Your task to perform on an android device: Do I have any events this weekend? Image 0: 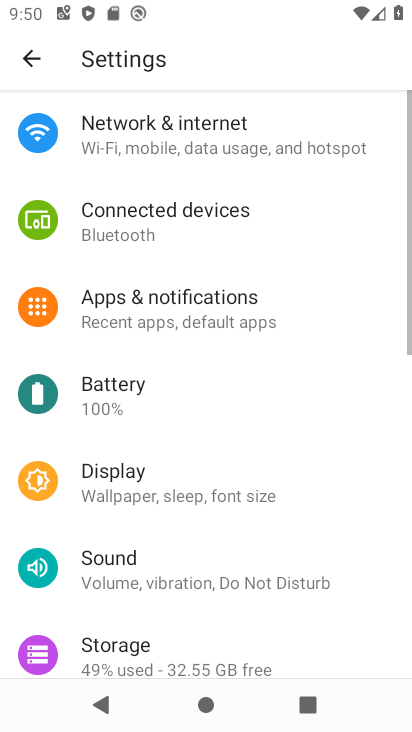
Step 0: click (214, 319)
Your task to perform on an android device: Do I have any events this weekend? Image 1: 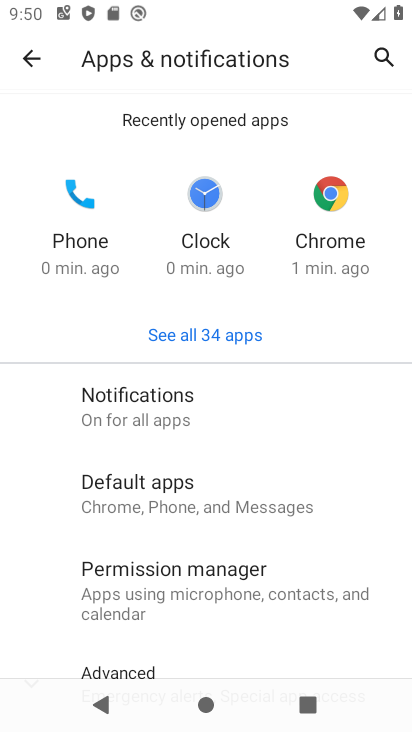
Step 1: press home button
Your task to perform on an android device: Do I have any events this weekend? Image 2: 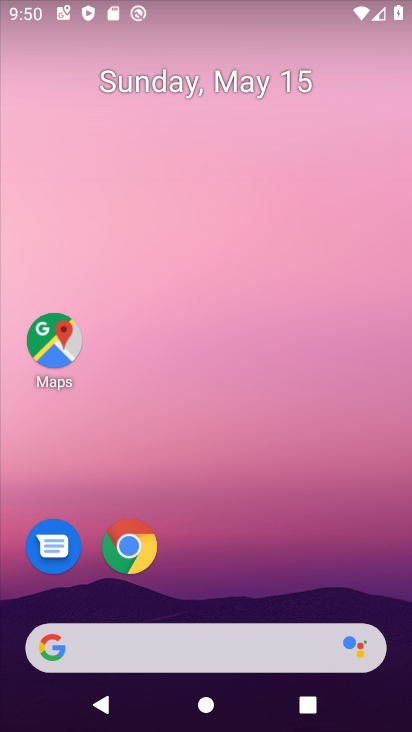
Step 2: drag from (268, 569) to (308, 26)
Your task to perform on an android device: Do I have any events this weekend? Image 3: 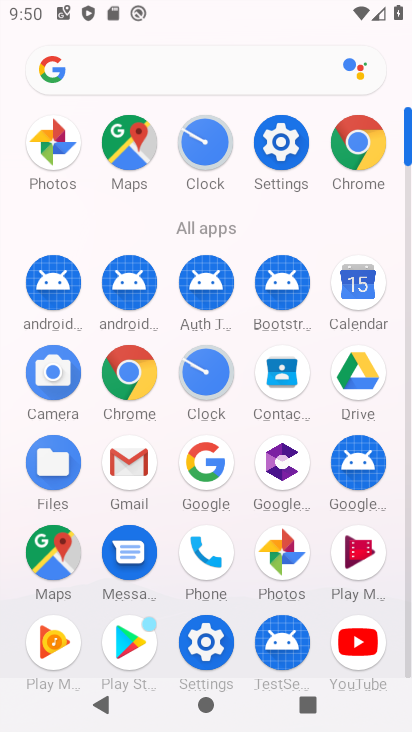
Step 3: click (343, 284)
Your task to perform on an android device: Do I have any events this weekend? Image 4: 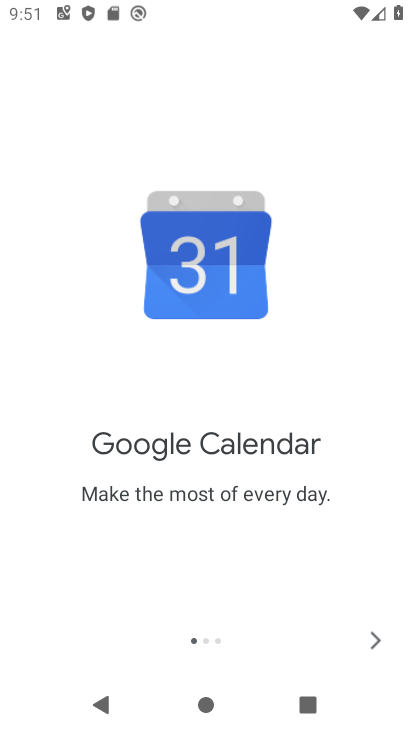
Step 4: click (358, 643)
Your task to perform on an android device: Do I have any events this weekend? Image 5: 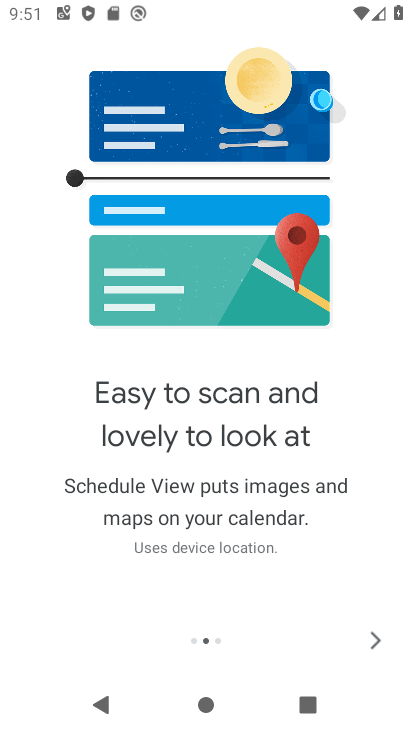
Step 5: click (358, 642)
Your task to perform on an android device: Do I have any events this weekend? Image 6: 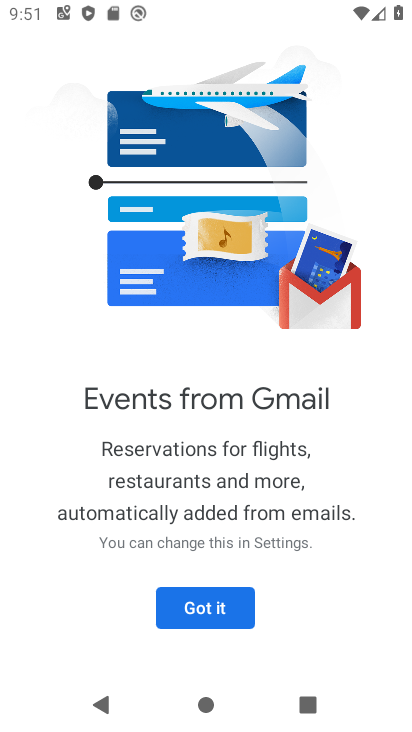
Step 6: click (234, 596)
Your task to perform on an android device: Do I have any events this weekend? Image 7: 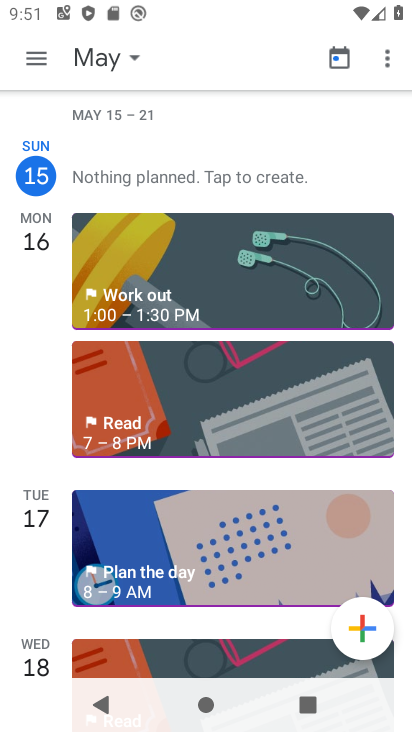
Step 7: task complete